Your task to perform on an android device: Go to Reddit.com Image 0: 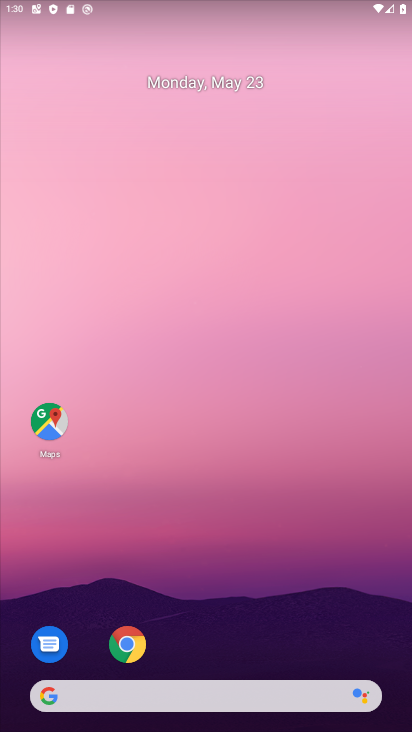
Step 0: drag from (258, 566) to (288, 40)
Your task to perform on an android device: Go to Reddit.com Image 1: 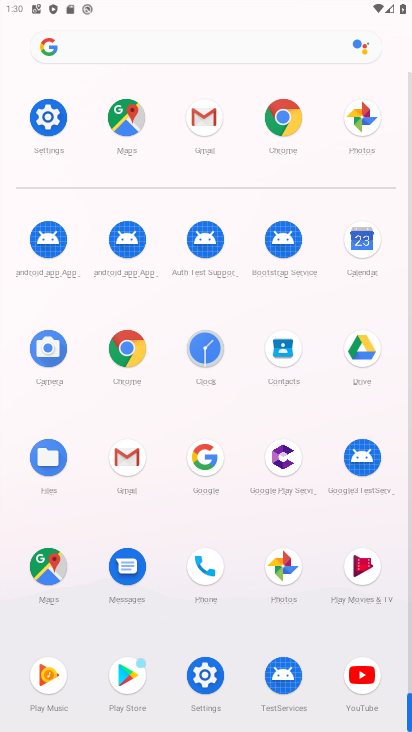
Step 1: drag from (4, 593) to (12, 236)
Your task to perform on an android device: Go to Reddit.com Image 2: 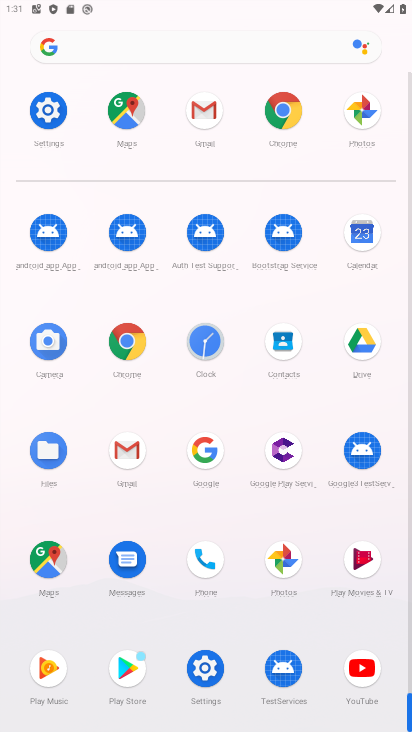
Step 2: click (122, 339)
Your task to perform on an android device: Go to Reddit.com Image 3: 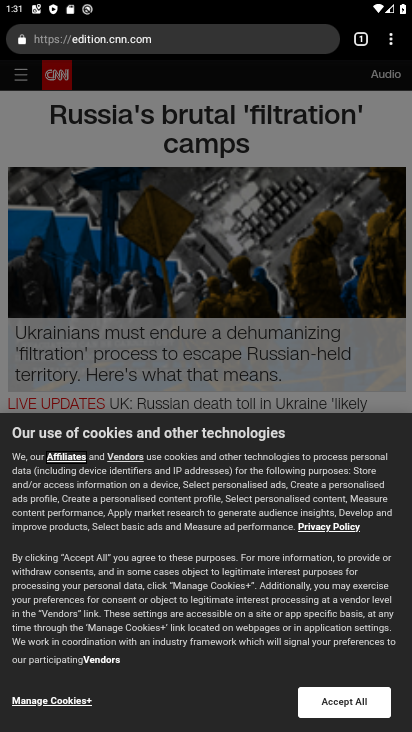
Step 3: click (130, 38)
Your task to perform on an android device: Go to Reddit.com Image 4: 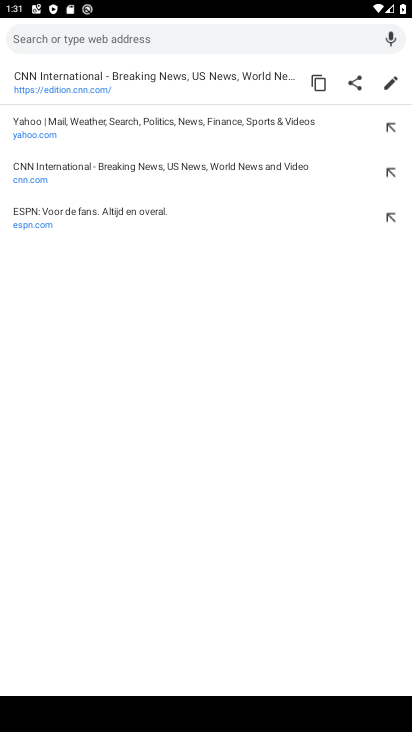
Step 4: type "Reddit.com"
Your task to perform on an android device: Go to Reddit.com Image 5: 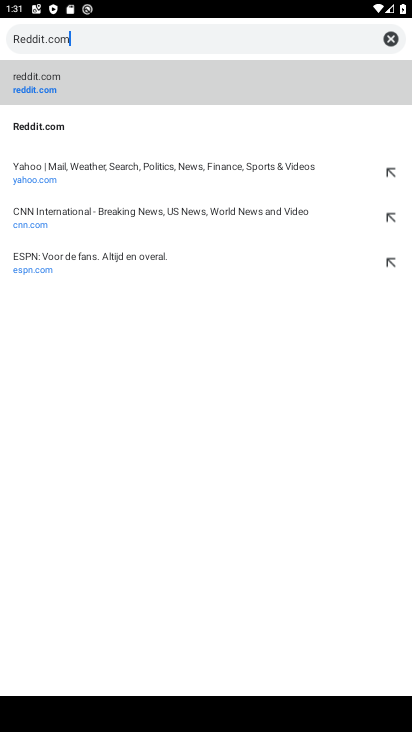
Step 5: type ""
Your task to perform on an android device: Go to Reddit.com Image 6: 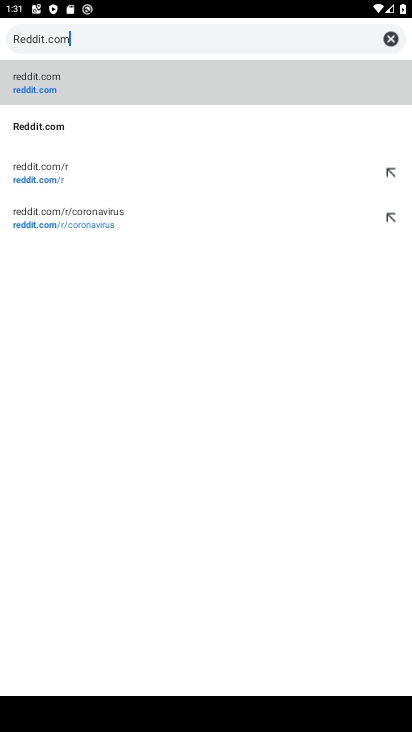
Step 6: click (75, 80)
Your task to perform on an android device: Go to Reddit.com Image 7: 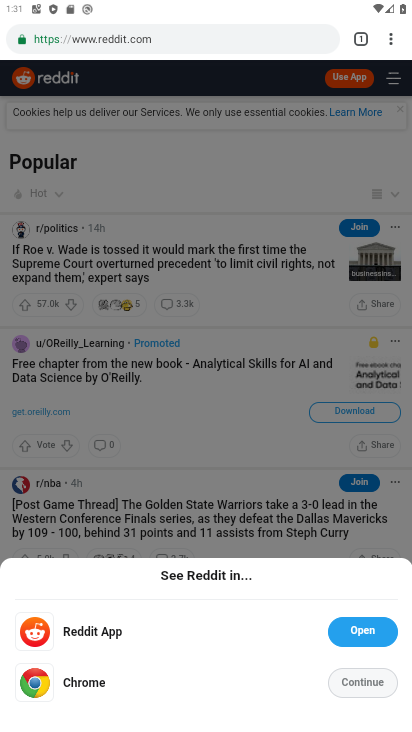
Step 7: task complete